Your task to perform on an android device: check battery use Image 0: 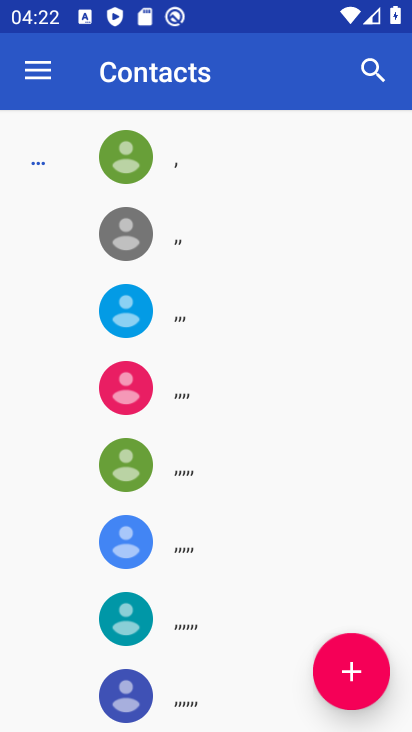
Step 0: press home button
Your task to perform on an android device: check battery use Image 1: 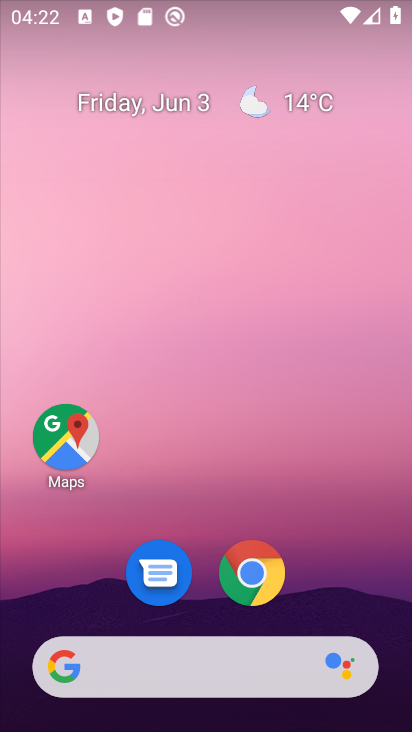
Step 1: drag from (239, 610) to (304, 2)
Your task to perform on an android device: check battery use Image 2: 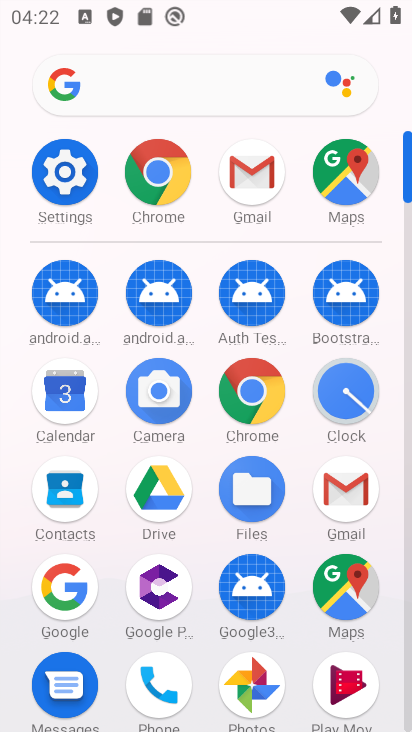
Step 2: click (71, 156)
Your task to perform on an android device: check battery use Image 3: 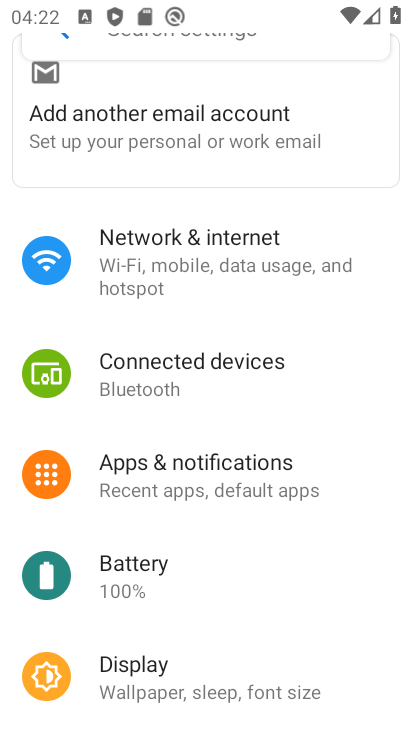
Step 3: click (236, 580)
Your task to perform on an android device: check battery use Image 4: 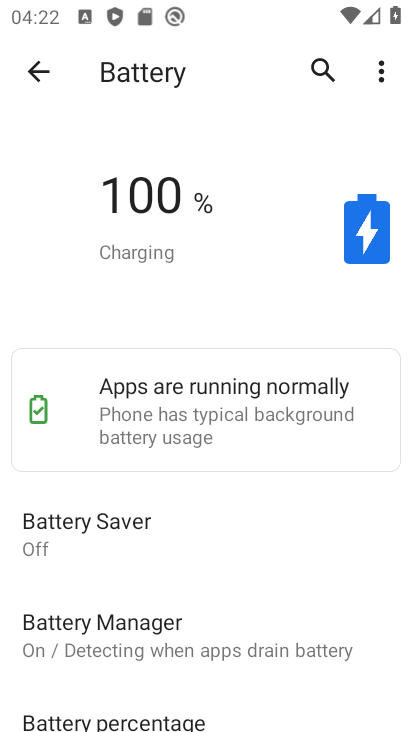
Step 4: task complete